Your task to perform on an android device: Open the calendar and show me this week's events? Image 0: 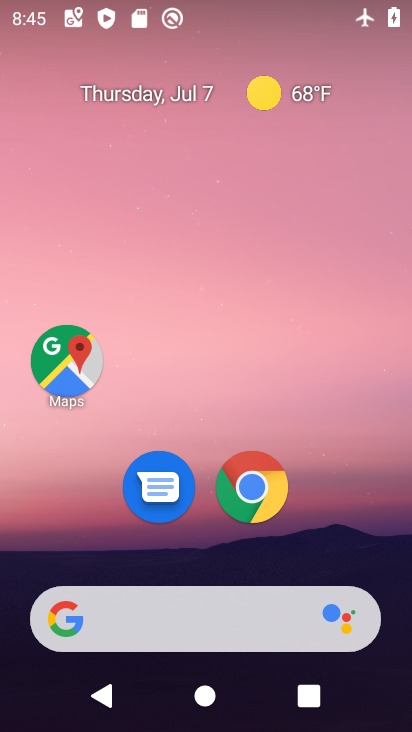
Step 0: click (229, 369)
Your task to perform on an android device: Open the calendar and show me this week's events? Image 1: 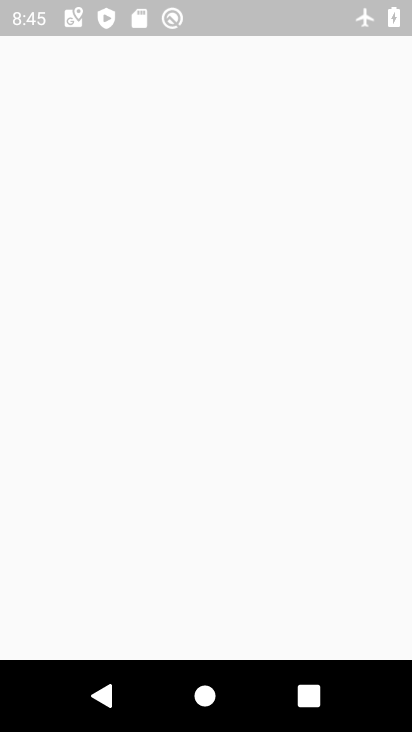
Step 1: drag from (177, 585) to (135, 314)
Your task to perform on an android device: Open the calendar and show me this week's events? Image 2: 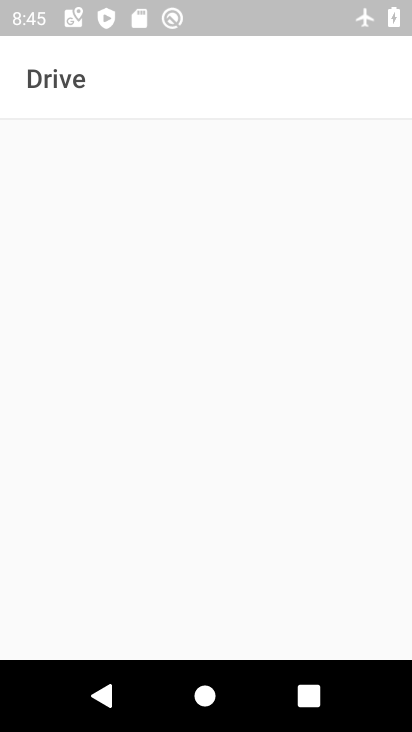
Step 2: press home button
Your task to perform on an android device: Open the calendar and show me this week's events? Image 3: 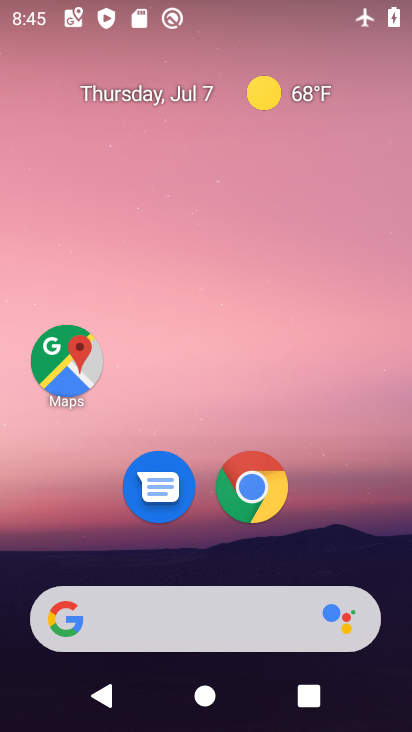
Step 3: drag from (195, 570) to (113, 111)
Your task to perform on an android device: Open the calendar and show me this week's events? Image 4: 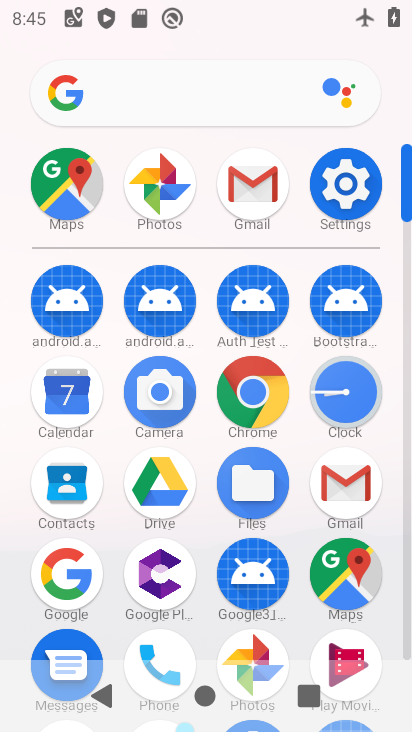
Step 4: click (72, 400)
Your task to perform on an android device: Open the calendar and show me this week's events? Image 5: 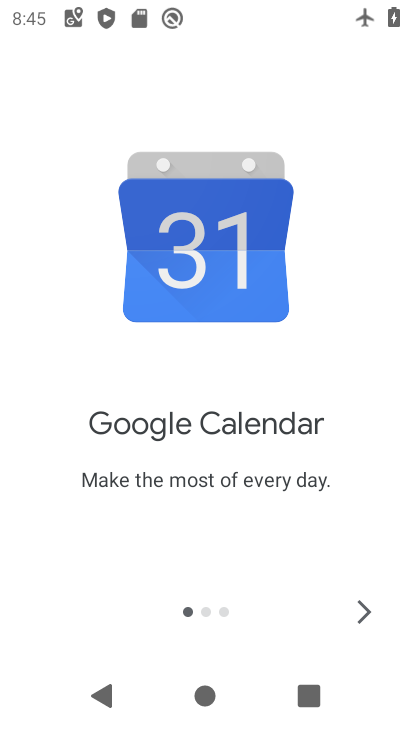
Step 5: click (367, 610)
Your task to perform on an android device: Open the calendar and show me this week's events? Image 6: 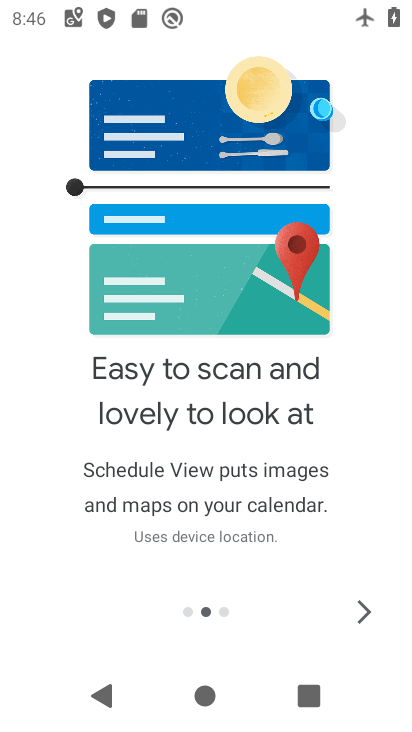
Step 6: click (360, 614)
Your task to perform on an android device: Open the calendar and show me this week's events? Image 7: 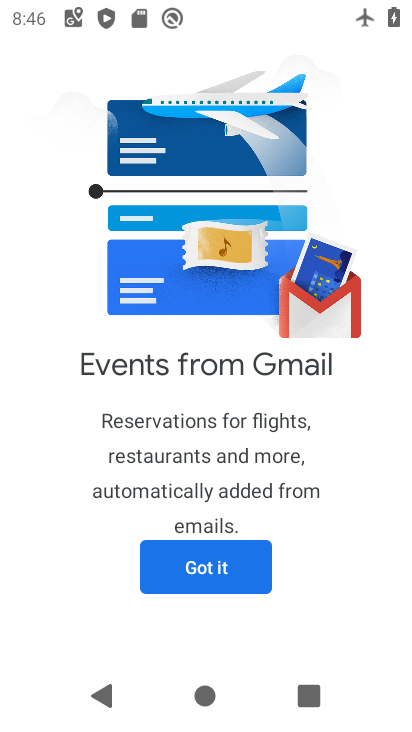
Step 7: click (246, 578)
Your task to perform on an android device: Open the calendar and show me this week's events? Image 8: 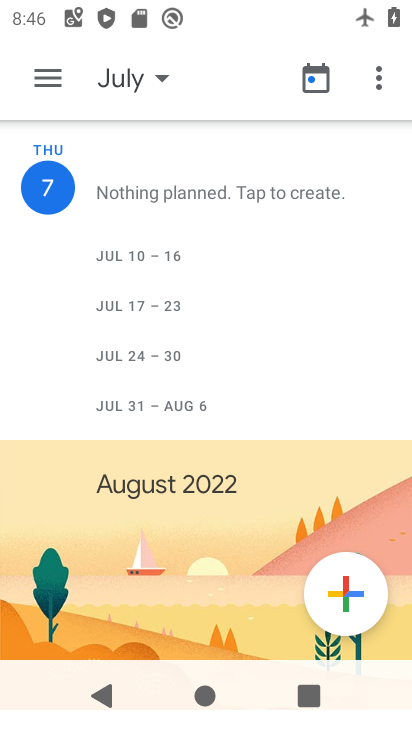
Step 8: click (28, 82)
Your task to perform on an android device: Open the calendar and show me this week's events? Image 9: 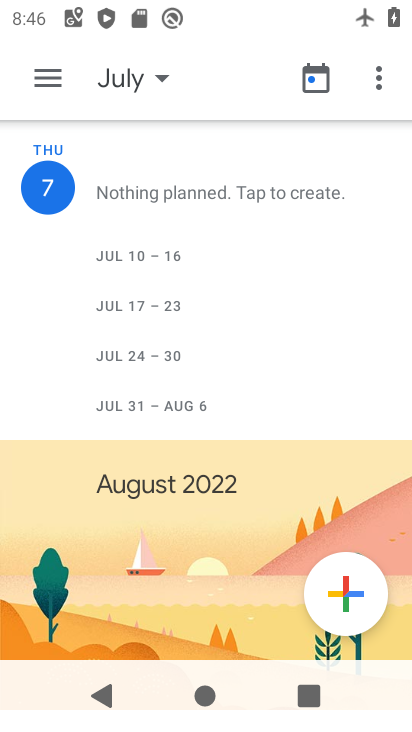
Step 9: click (48, 73)
Your task to perform on an android device: Open the calendar and show me this week's events? Image 10: 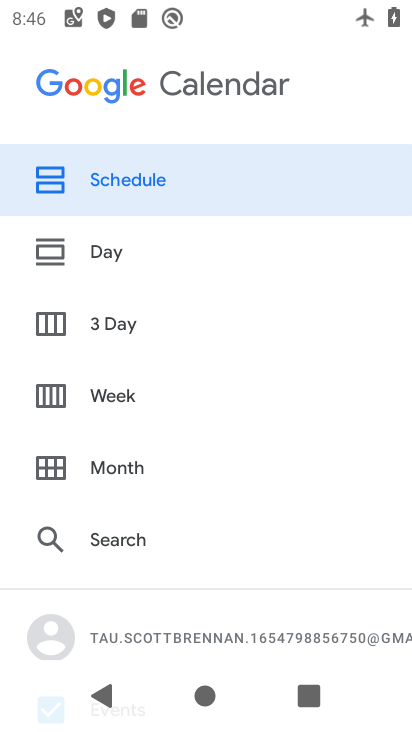
Step 10: click (142, 395)
Your task to perform on an android device: Open the calendar and show me this week's events? Image 11: 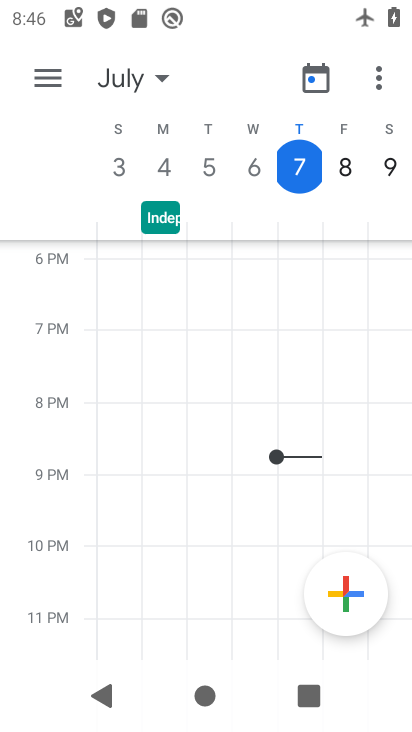
Step 11: task complete